Your task to perform on an android device: allow cookies in the chrome app Image 0: 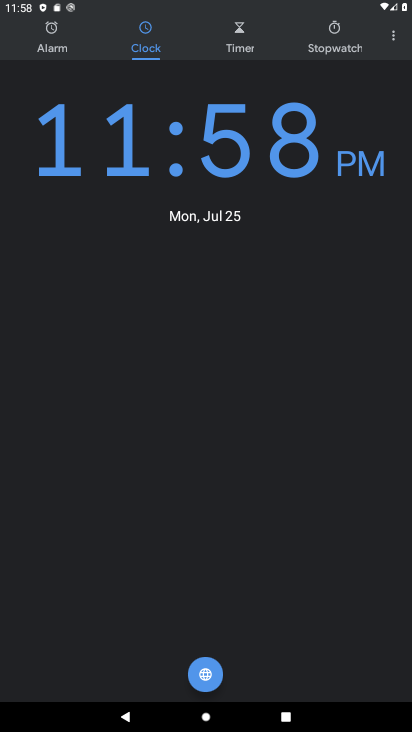
Step 0: press home button
Your task to perform on an android device: allow cookies in the chrome app Image 1: 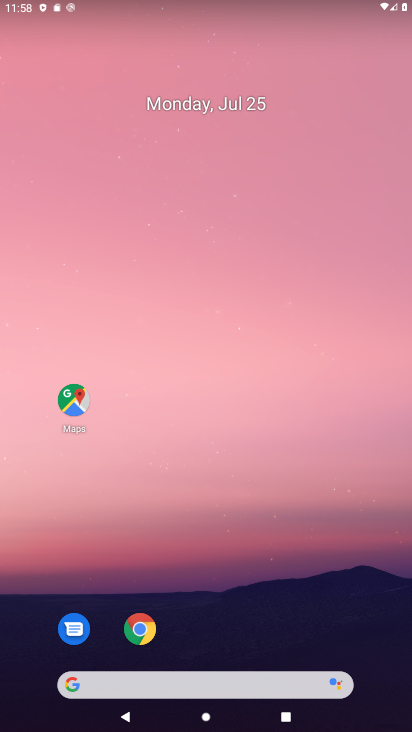
Step 1: click (147, 630)
Your task to perform on an android device: allow cookies in the chrome app Image 2: 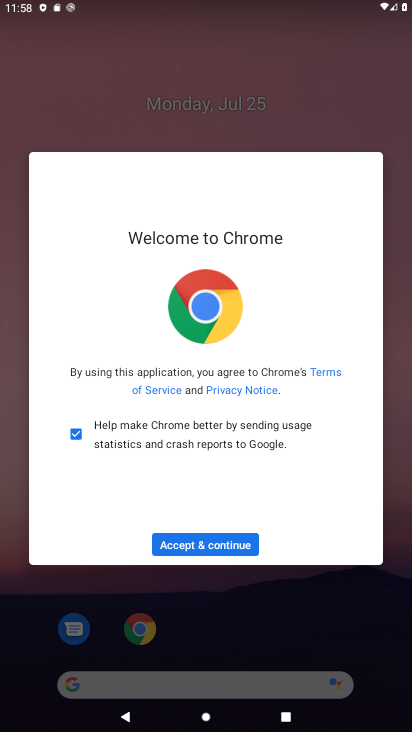
Step 2: click (230, 546)
Your task to perform on an android device: allow cookies in the chrome app Image 3: 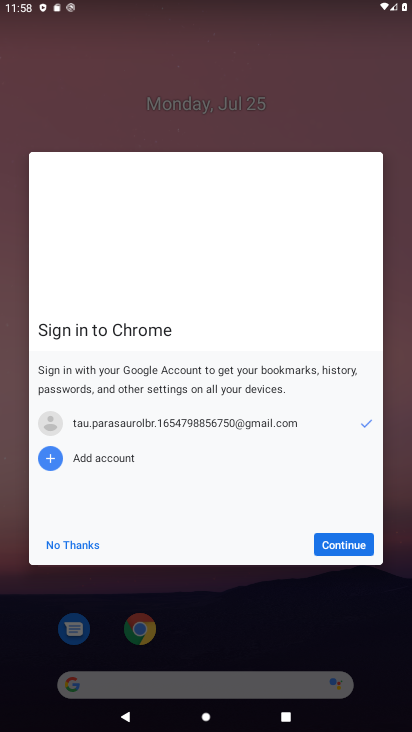
Step 3: click (332, 551)
Your task to perform on an android device: allow cookies in the chrome app Image 4: 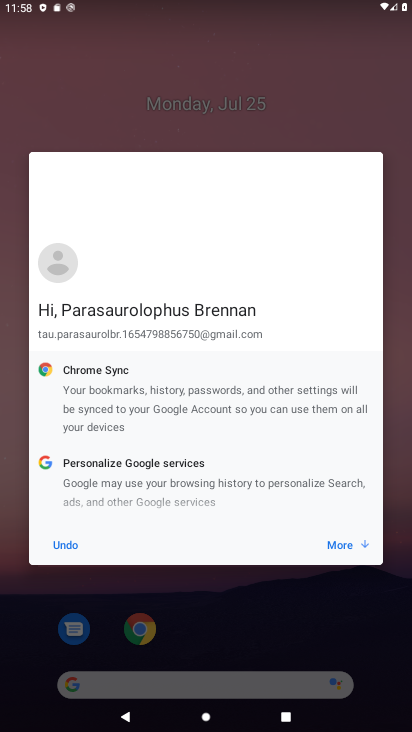
Step 4: click (338, 548)
Your task to perform on an android device: allow cookies in the chrome app Image 5: 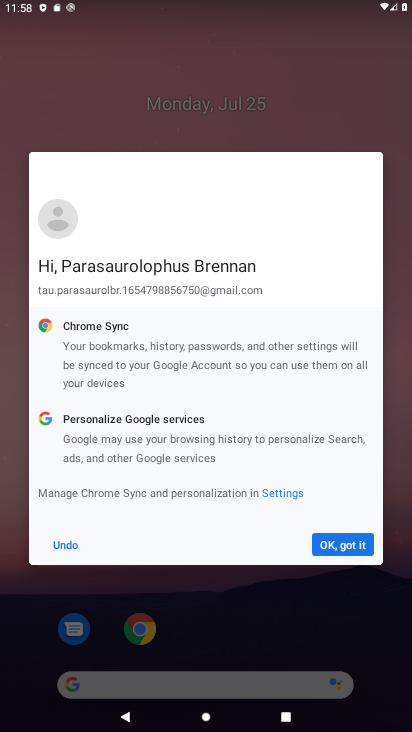
Step 5: click (346, 549)
Your task to perform on an android device: allow cookies in the chrome app Image 6: 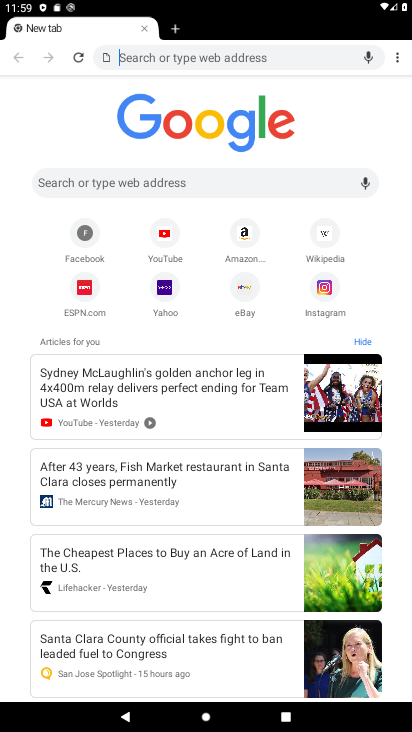
Step 6: click (395, 51)
Your task to perform on an android device: allow cookies in the chrome app Image 7: 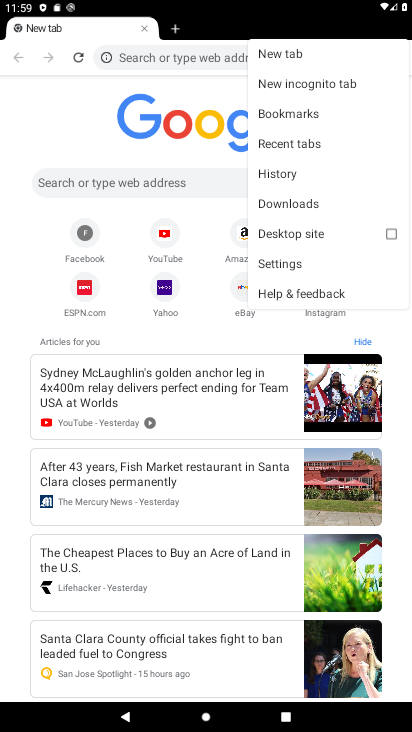
Step 7: click (308, 261)
Your task to perform on an android device: allow cookies in the chrome app Image 8: 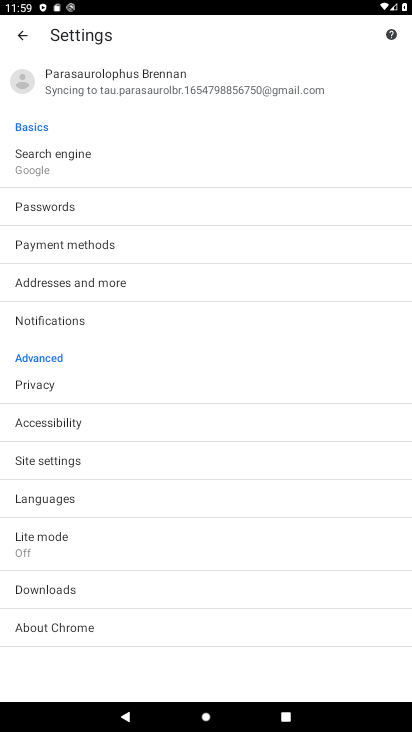
Step 8: click (151, 463)
Your task to perform on an android device: allow cookies in the chrome app Image 9: 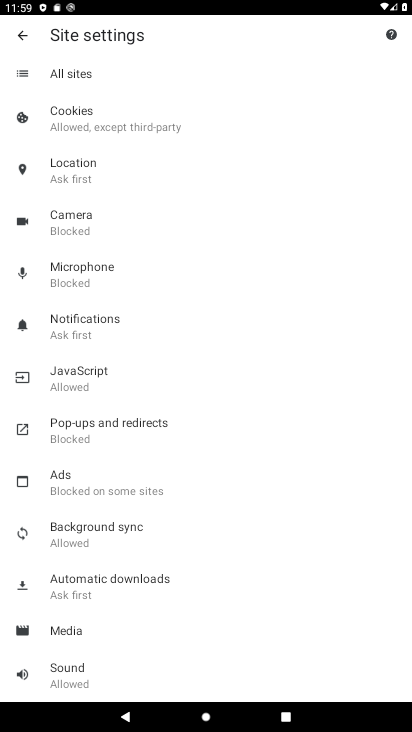
Step 9: click (90, 120)
Your task to perform on an android device: allow cookies in the chrome app Image 10: 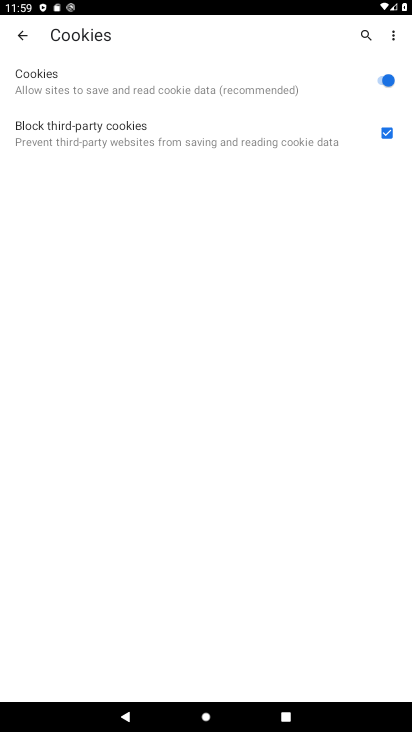
Step 10: click (390, 133)
Your task to perform on an android device: allow cookies in the chrome app Image 11: 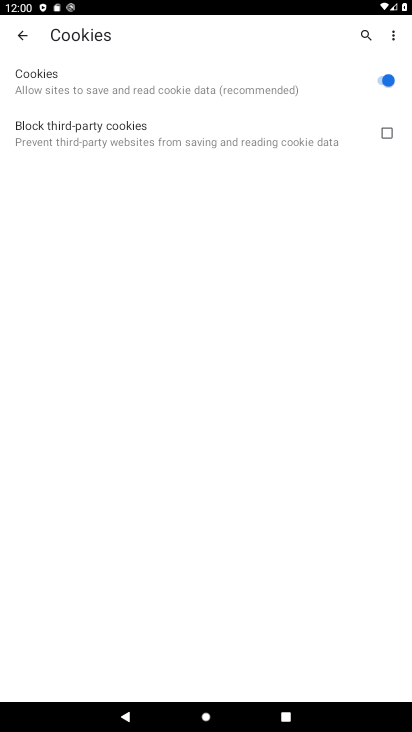
Step 11: task complete